Your task to perform on an android device: open app "Microsoft Outlook" (install if not already installed) Image 0: 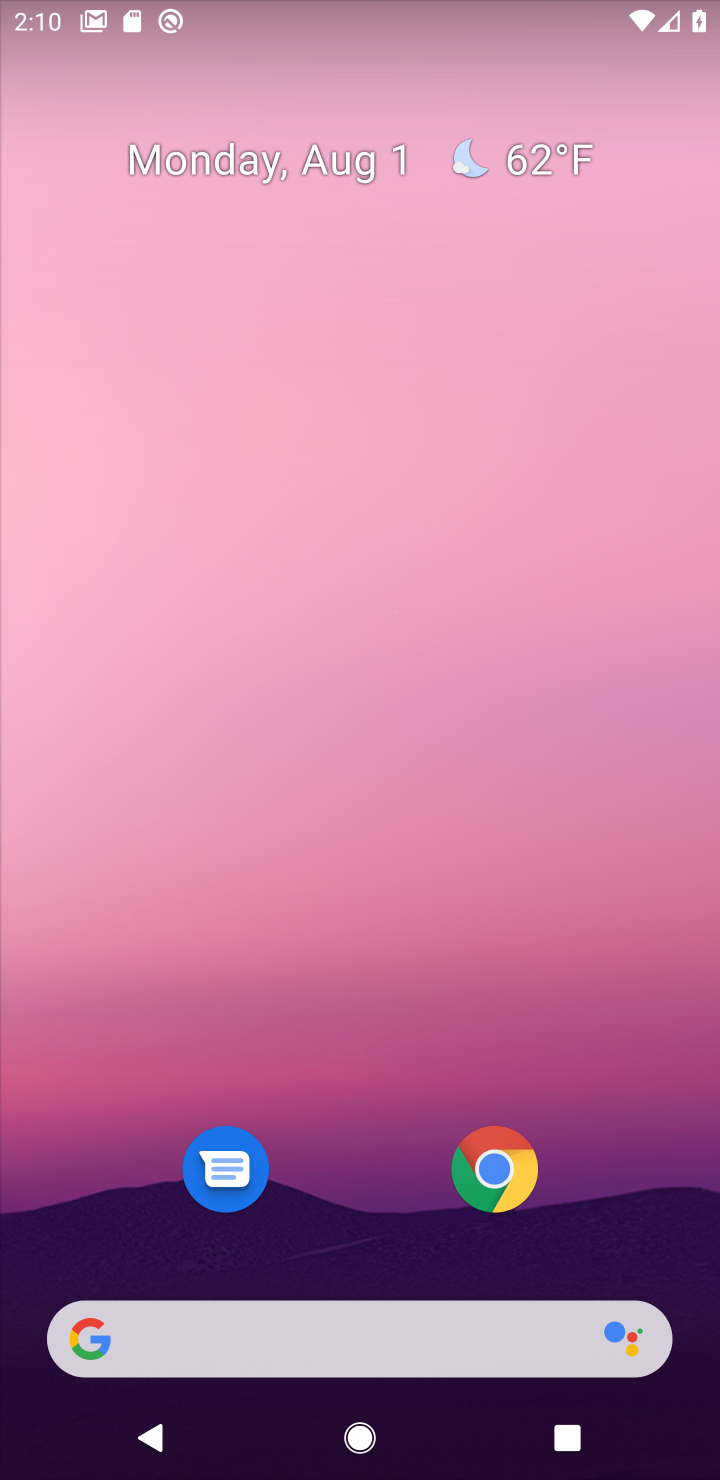
Step 0: drag from (318, 1251) to (361, 215)
Your task to perform on an android device: open app "Microsoft Outlook" (install if not already installed) Image 1: 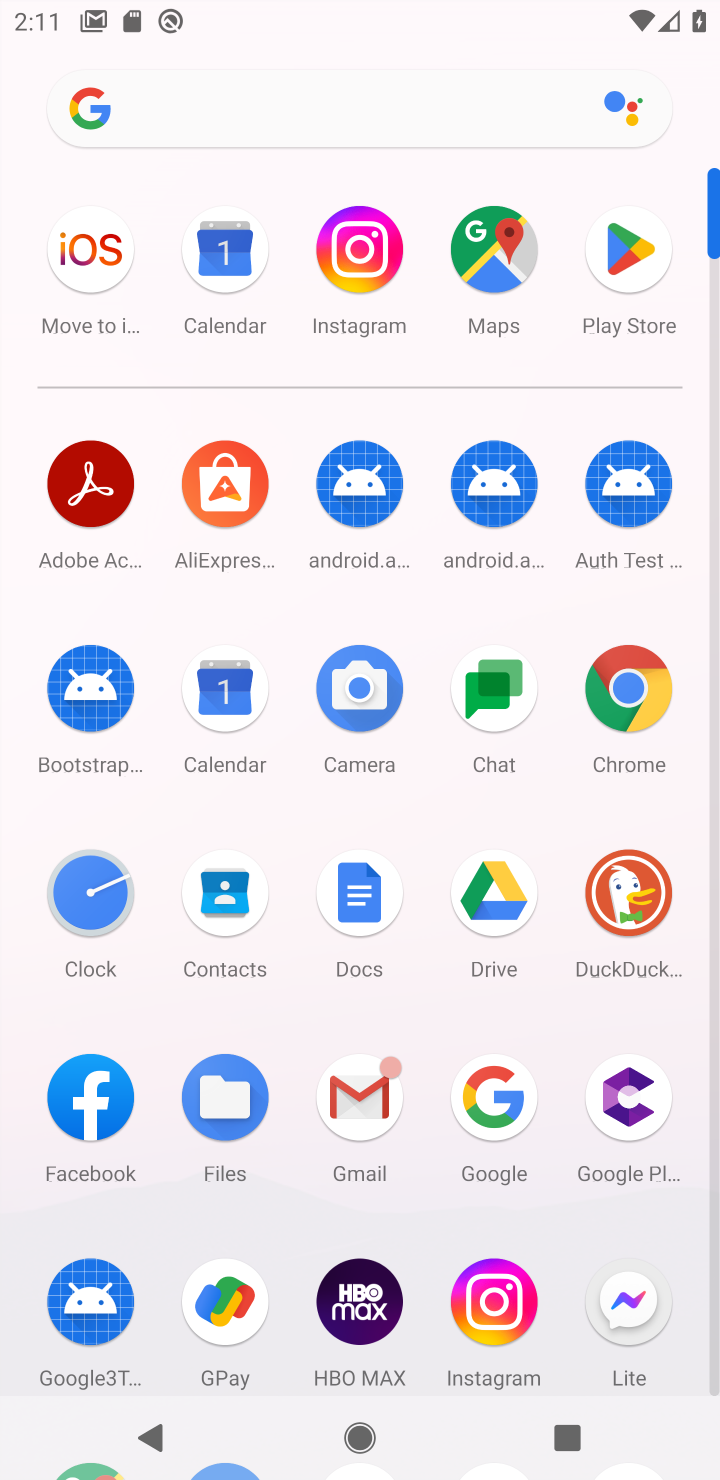
Step 1: click (657, 318)
Your task to perform on an android device: open app "Microsoft Outlook" (install if not already installed) Image 2: 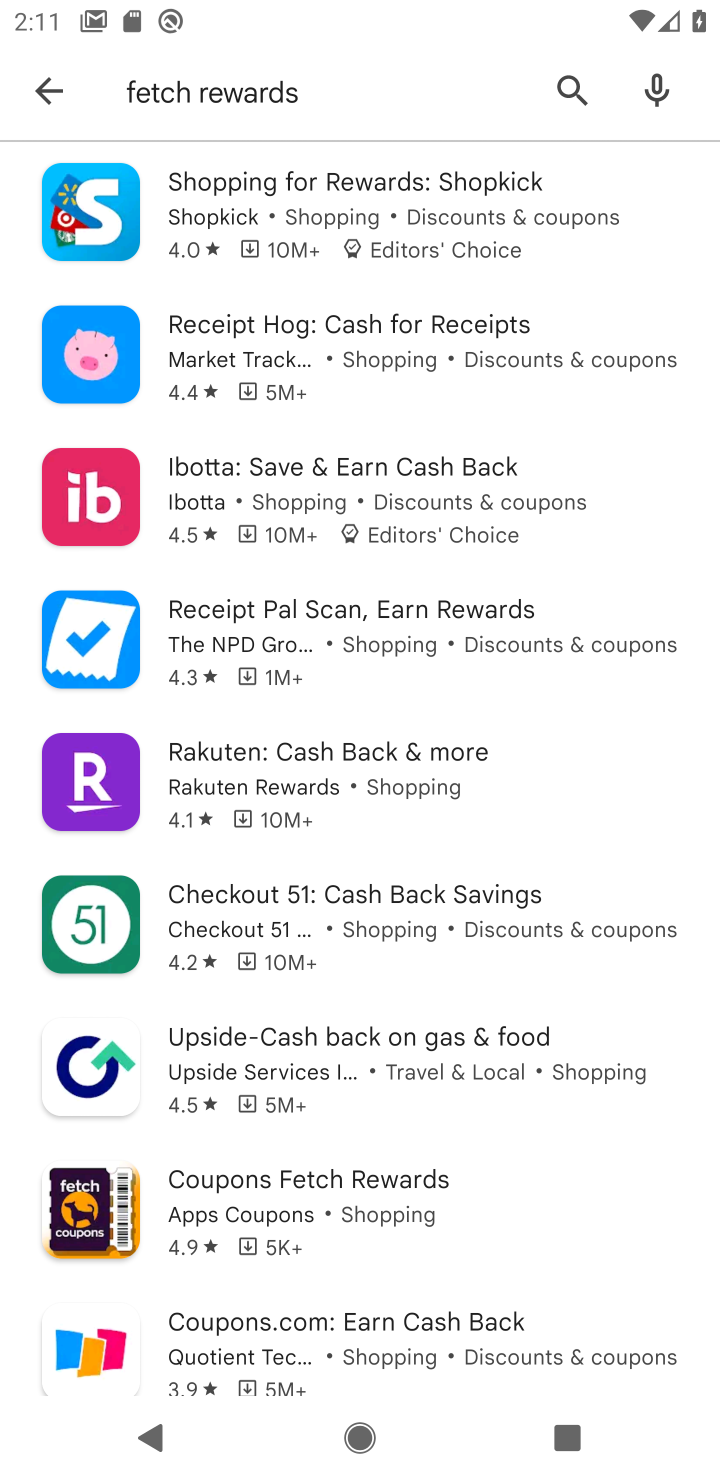
Step 2: click (657, 318)
Your task to perform on an android device: open app "Microsoft Outlook" (install if not already installed) Image 3: 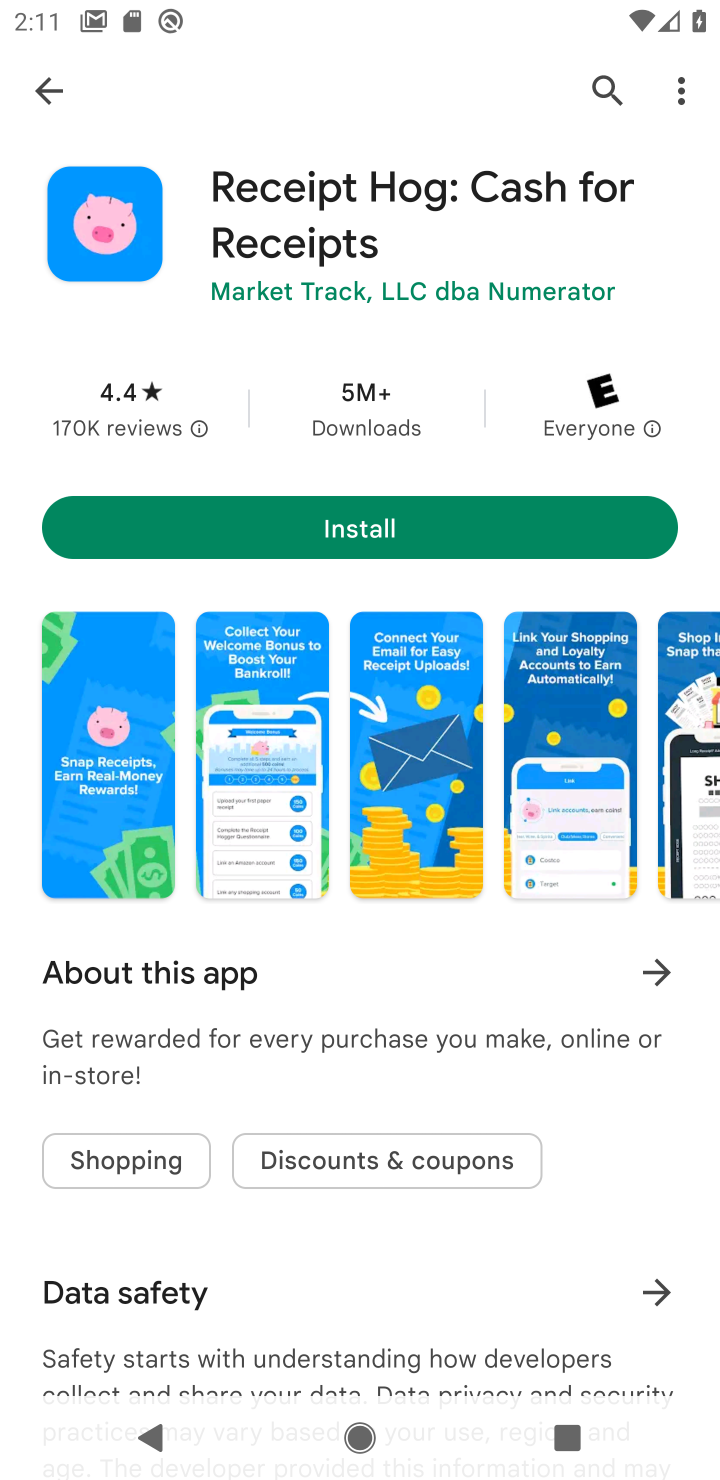
Step 3: click (42, 80)
Your task to perform on an android device: open app "Microsoft Outlook" (install if not already installed) Image 4: 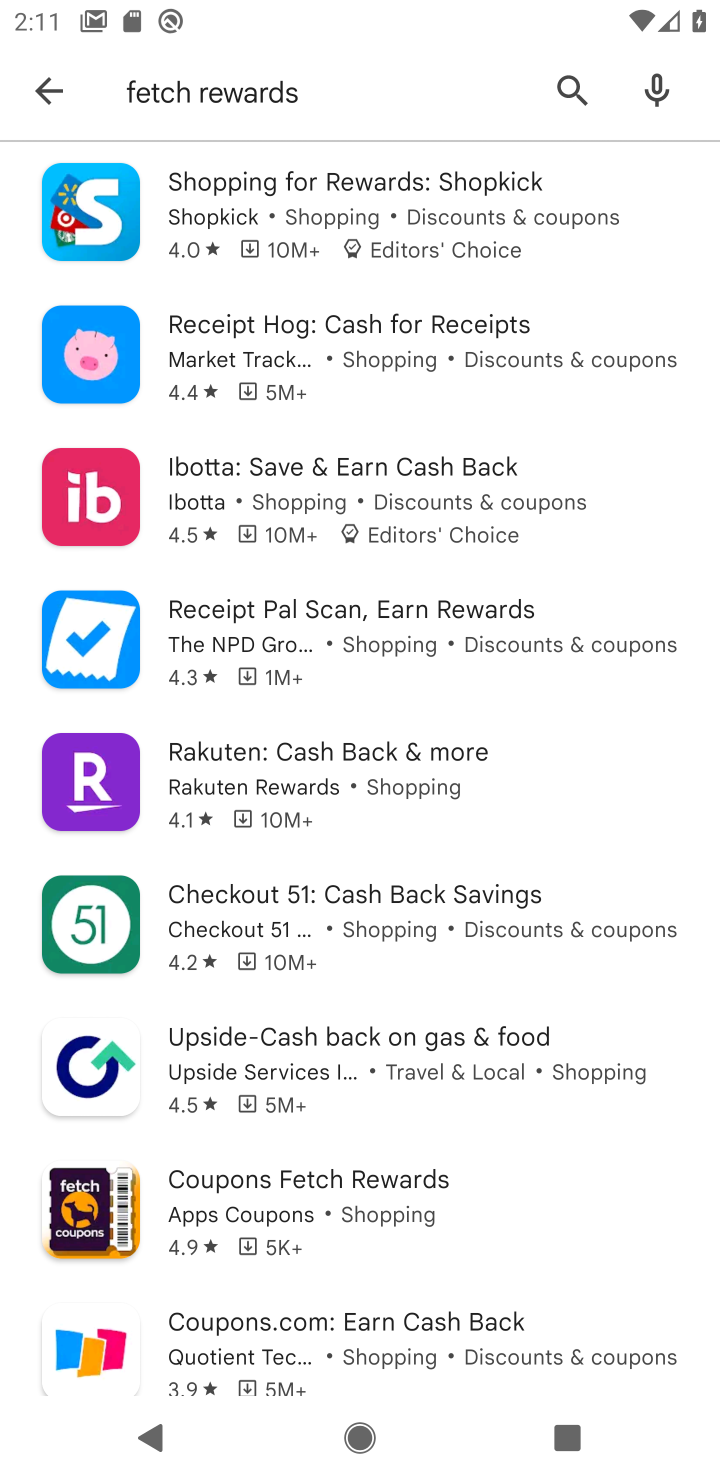
Step 4: click (42, 80)
Your task to perform on an android device: open app "Microsoft Outlook" (install if not already installed) Image 5: 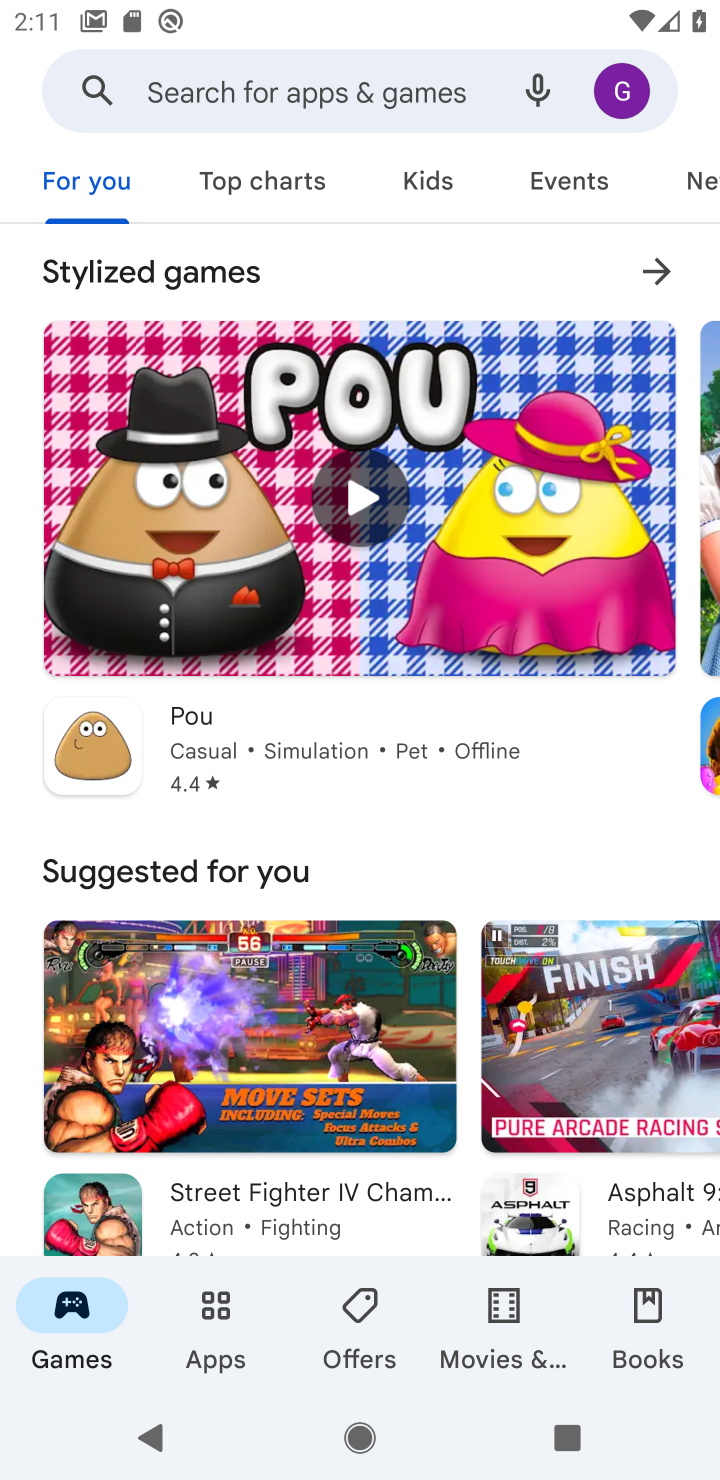
Step 5: click (349, 75)
Your task to perform on an android device: open app "Microsoft Outlook" (install if not already installed) Image 6: 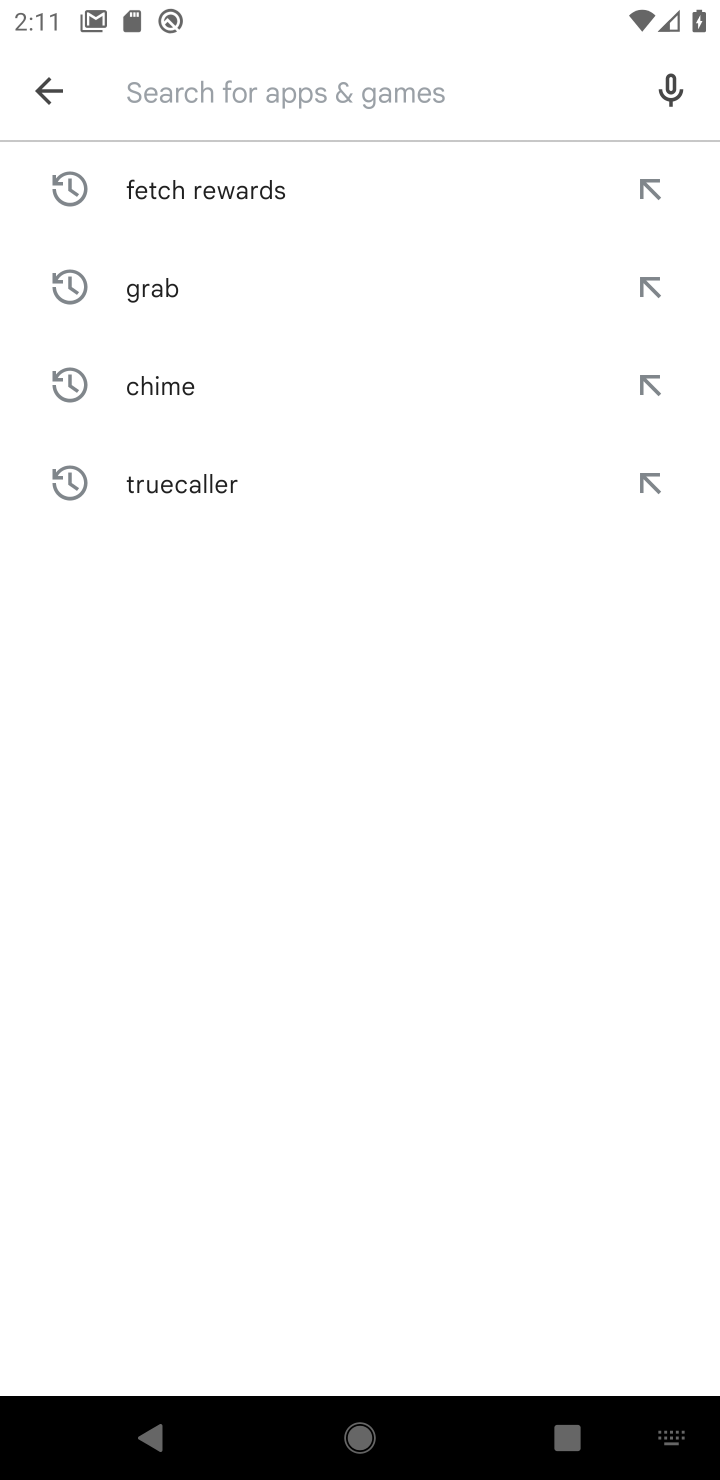
Step 6: type "Microsoft Outlook"
Your task to perform on an android device: open app "Microsoft Outlook" (install if not already installed) Image 7: 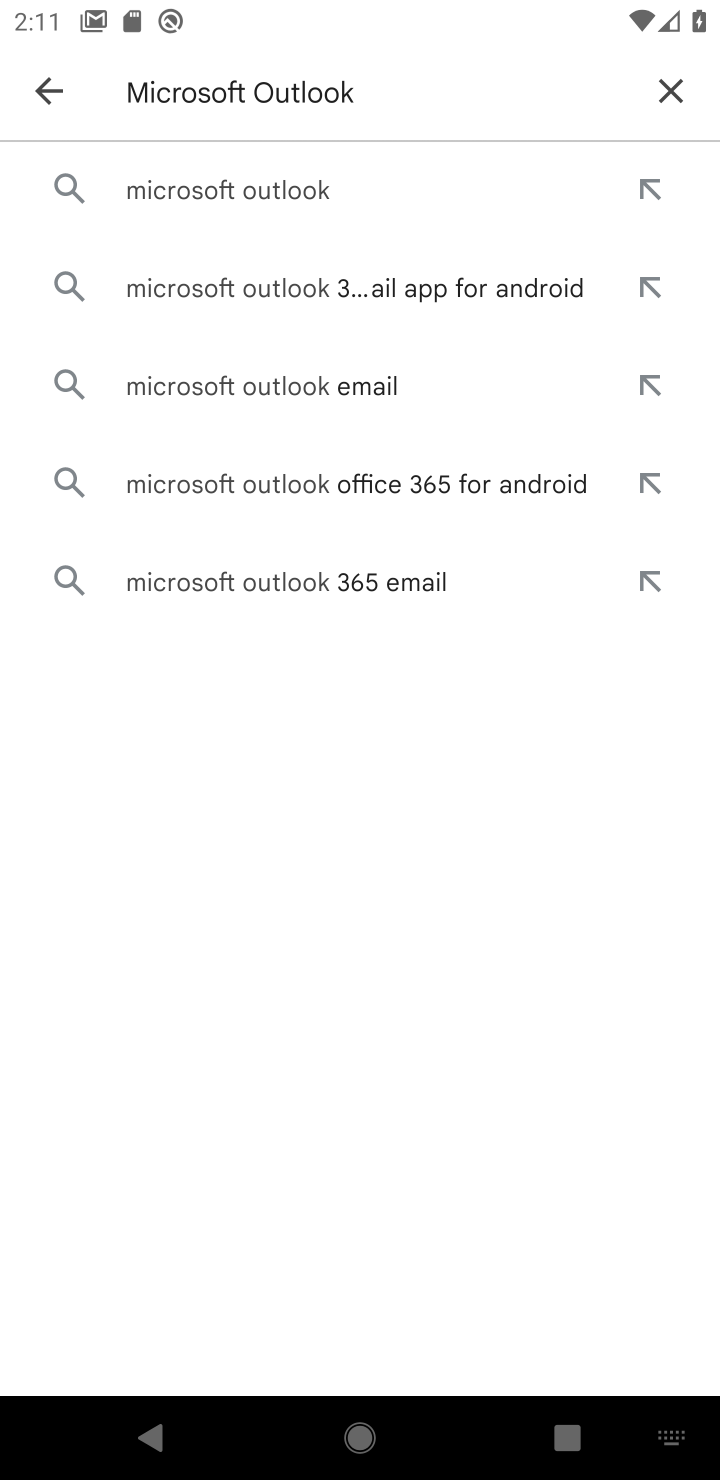
Step 7: click (280, 179)
Your task to perform on an android device: open app "Microsoft Outlook" (install if not already installed) Image 8: 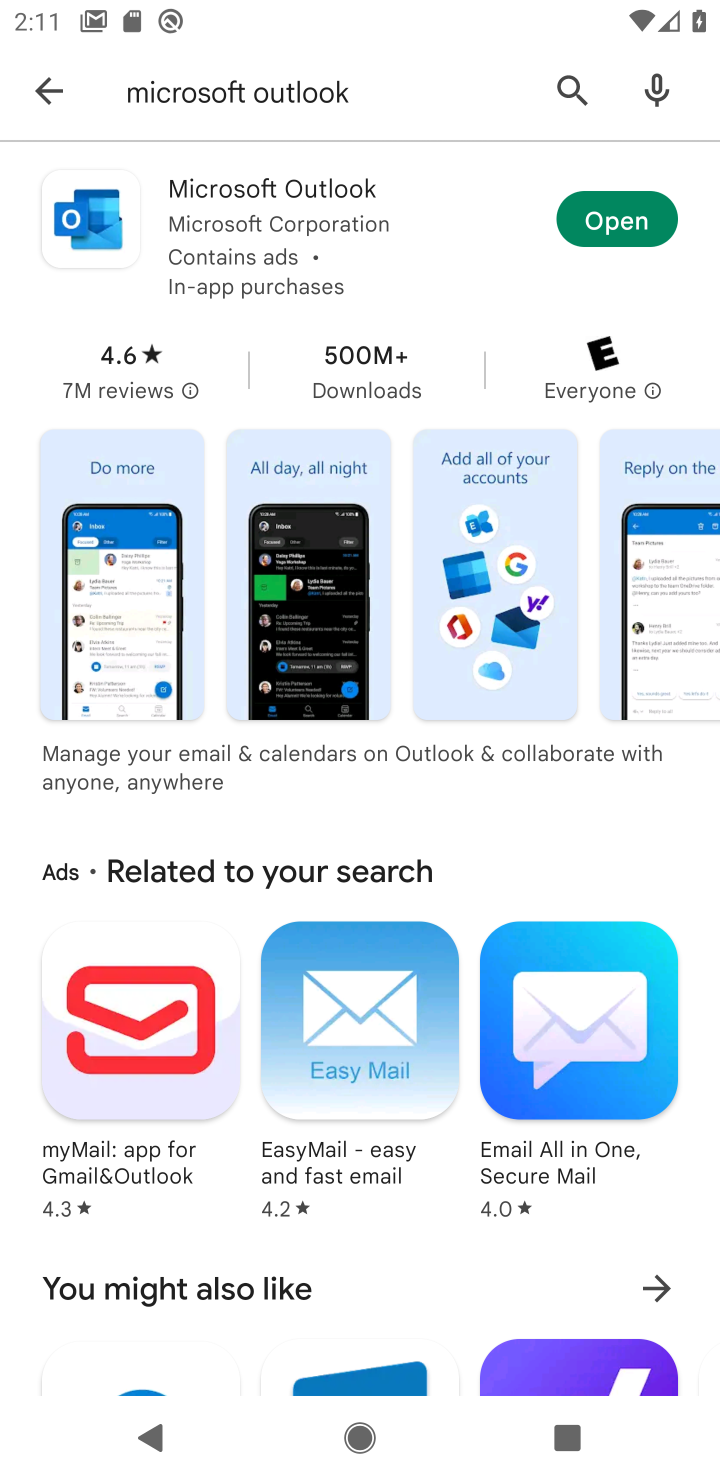
Step 8: click (596, 207)
Your task to perform on an android device: open app "Microsoft Outlook" (install if not already installed) Image 9: 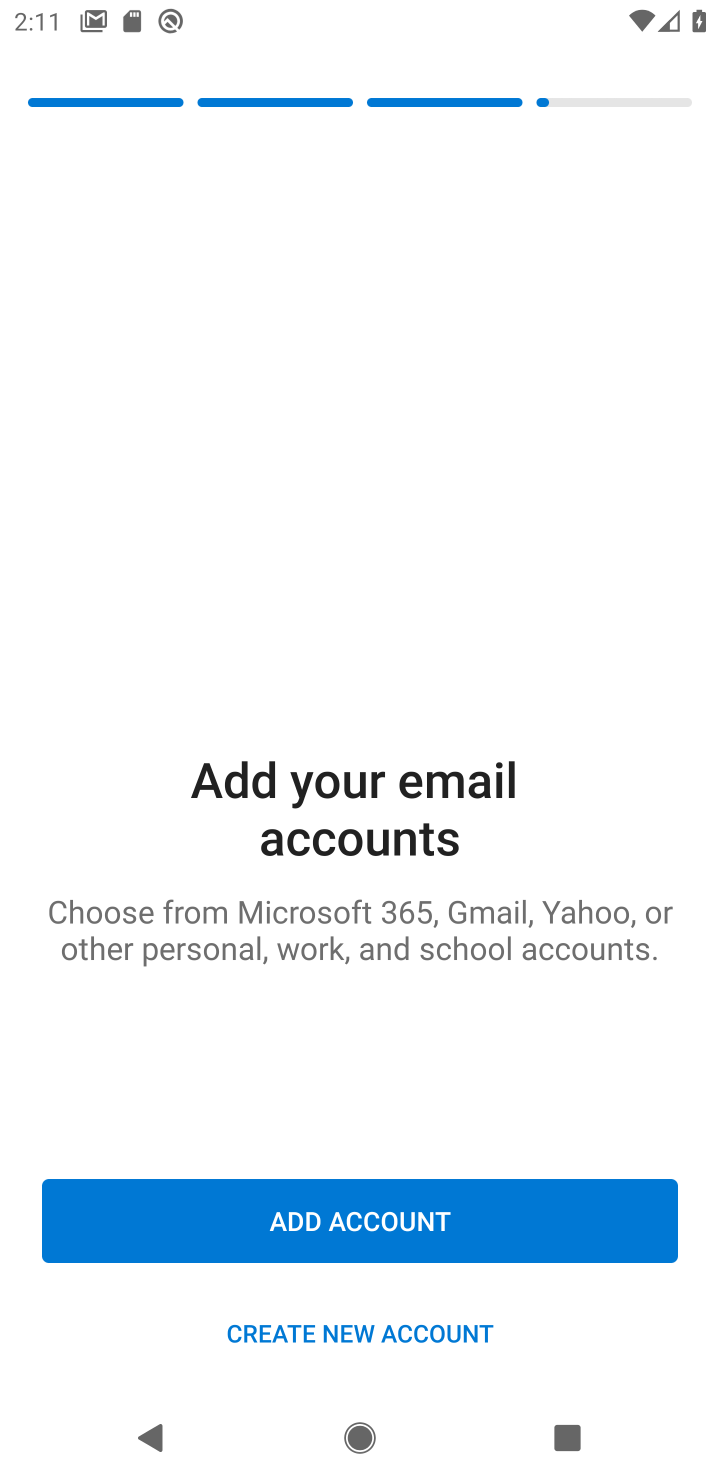
Step 9: task complete